Your task to perform on an android device: Clear the cart on amazon.com. Add "macbook" to the cart on amazon.com Image 0: 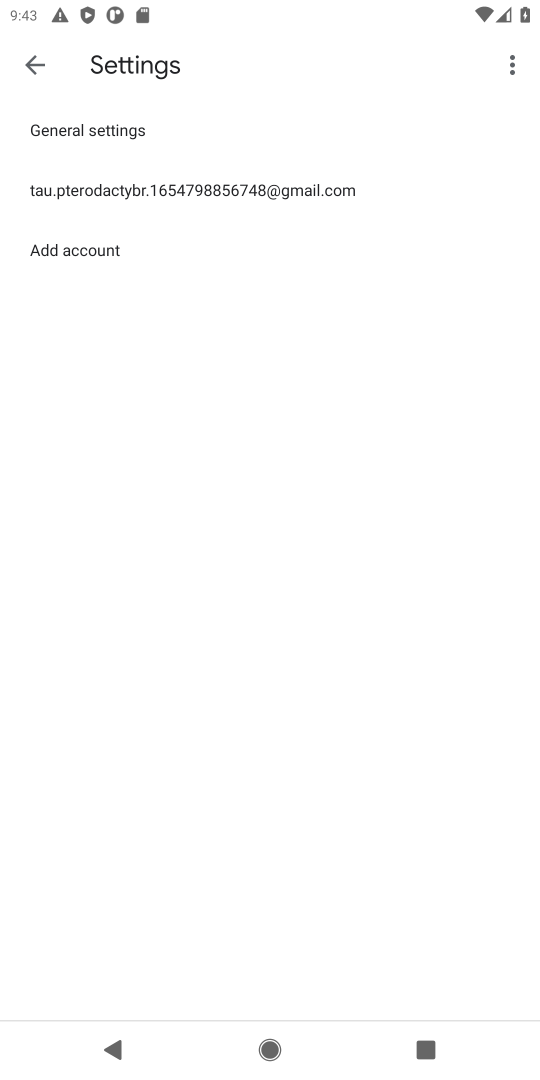
Step 0: task complete